Your task to perform on an android device: turn off data saver in the chrome app Image 0: 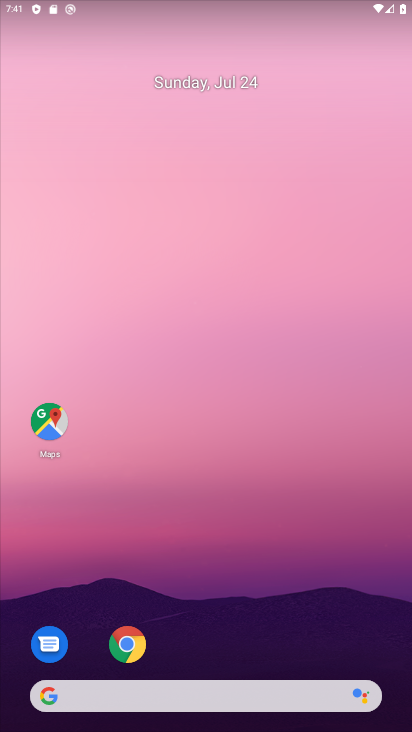
Step 0: drag from (241, 639) to (279, 85)
Your task to perform on an android device: turn off data saver in the chrome app Image 1: 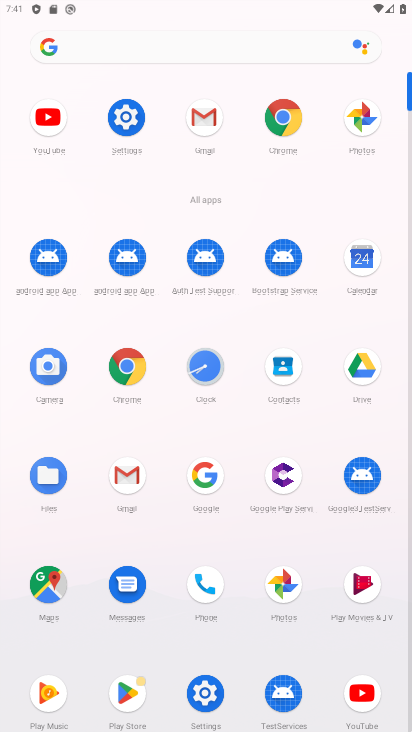
Step 1: click (123, 393)
Your task to perform on an android device: turn off data saver in the chrome app Image 2: 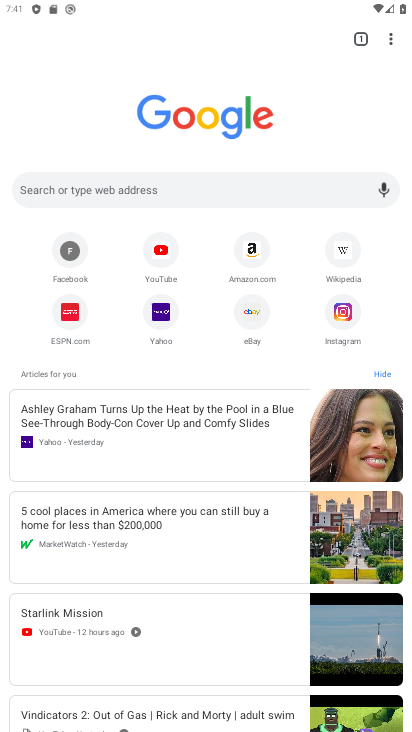
Step 2: click (387, 36)
Your task to perform on an android device: turn off data saver in the chrome app Image 3: 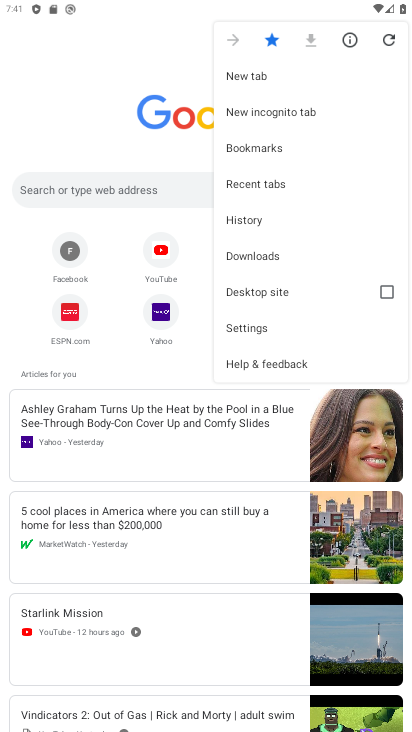
Step 3: click (264, 331)
Your task to perform on an android device: turn off data saver in the chrome app Image 4: 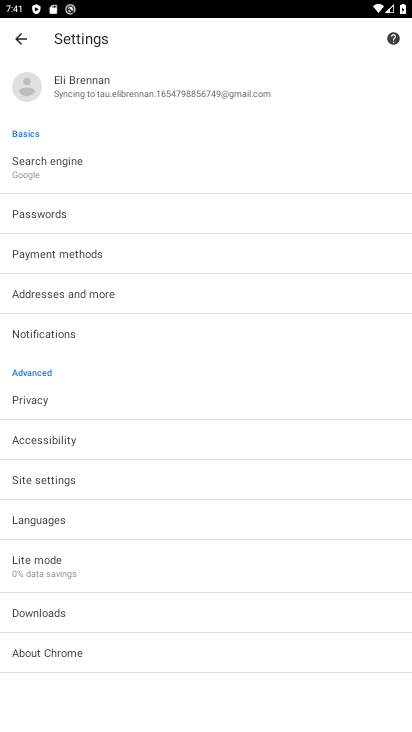
Step 4: click (52, 570)
Your task to perform on an android device: turn off data saver in the chrome app Image 5: 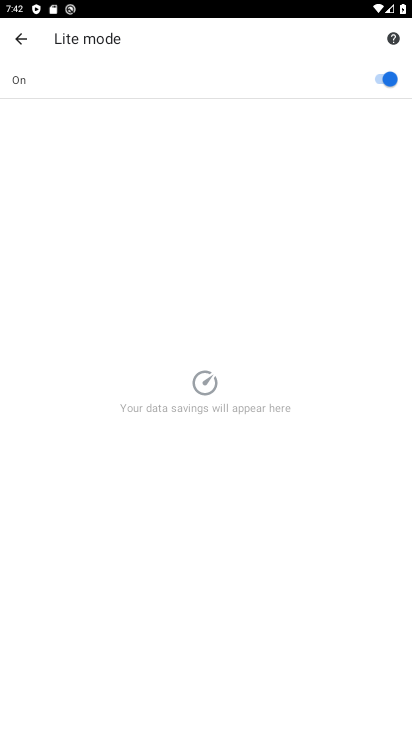
Step 5: click (354, 72)
Your task to perform on an android device: turn off data saver in the chrome app Image 6: 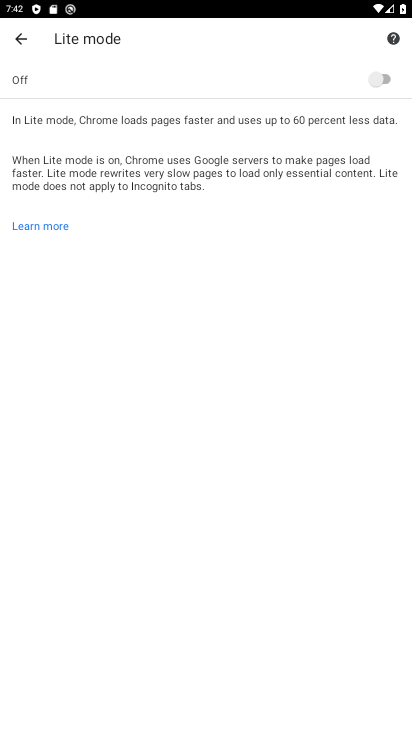
Step 6: task complete